Your task to perform on an android device: open a bookmark in the chrome app Image 0: 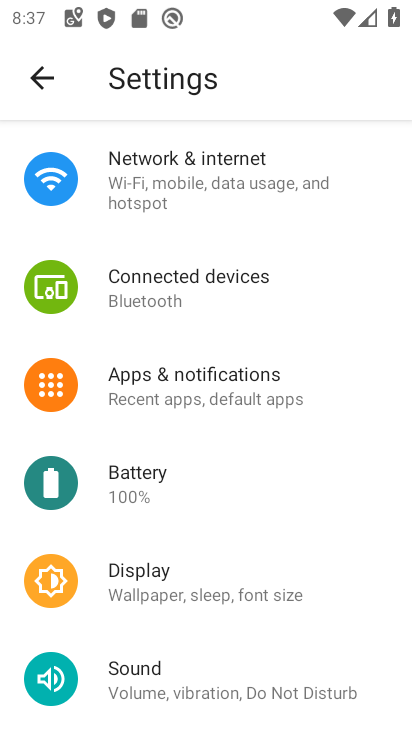
Step 0: press home button
Your task to perform on an android device: open a bookmark in the chrome app Image 1: 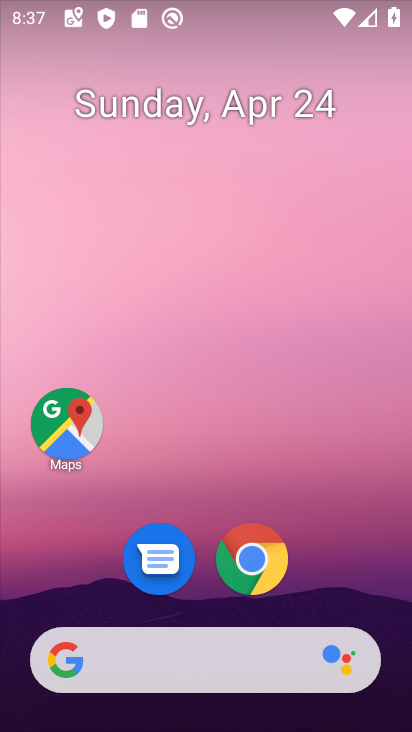
Step 1: drag from (359, 568) to (262, 137)
Your task to perform on an android device: open a bookmark in the chrome app Image 2: 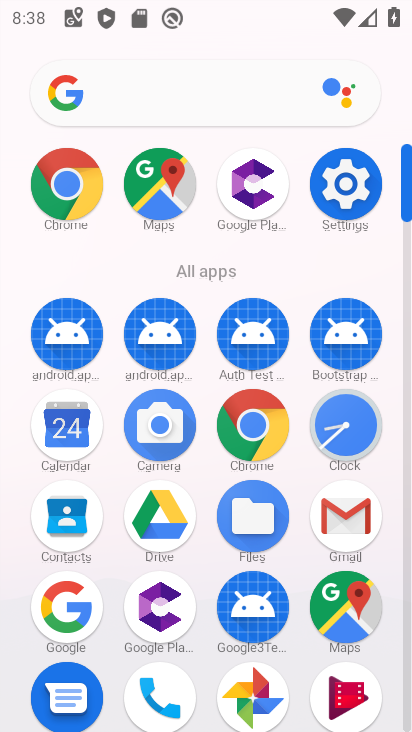
Step 2: click (80, 199)
Your task to perform on an android device: open a bookmark in the chrome app Image 3: 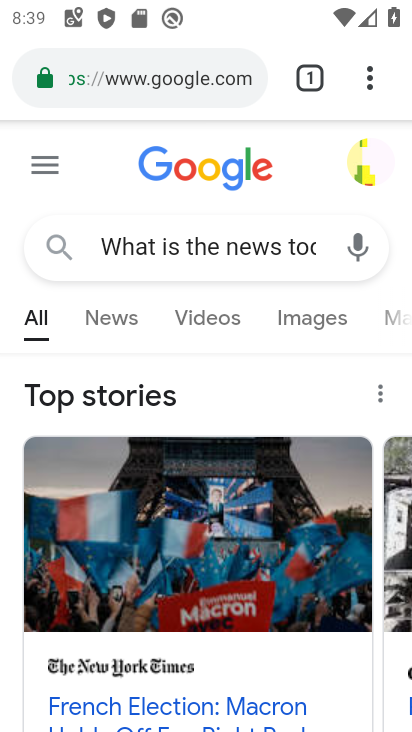
Step 3: task complete